Your task to perform on an android device: See recent photos Image 0: 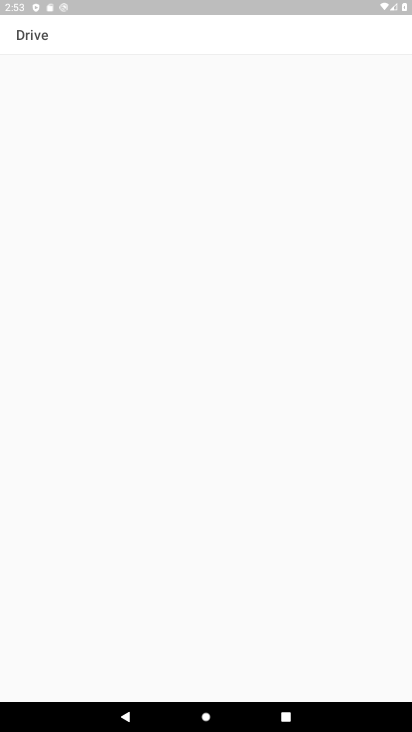
Step 0: press home button
Your task to perform on an android device: See recent photos Image 1: 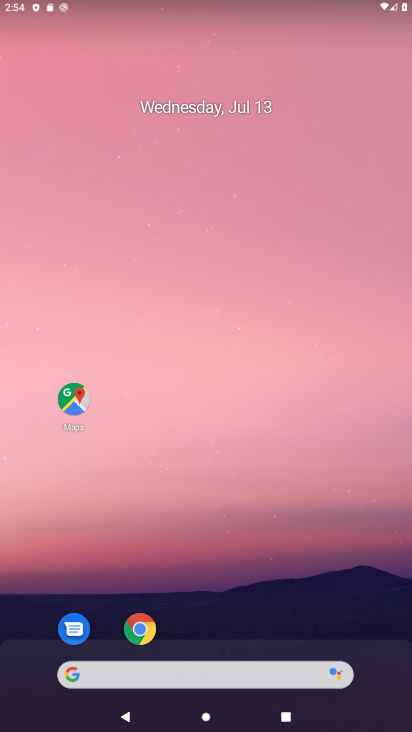
Step 1: drag from (296, 617) to (224, 170)
Your task to perform on an android device: See recent photos Image 2: 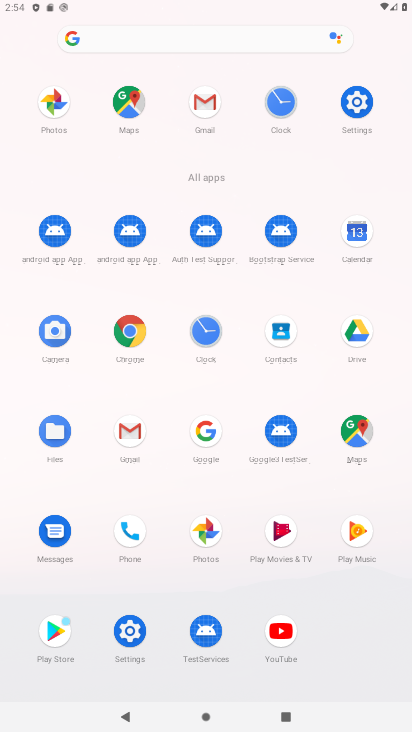
Step 2: click (207, 540)
Your task to perform on an android device: See recent photos Image 3: 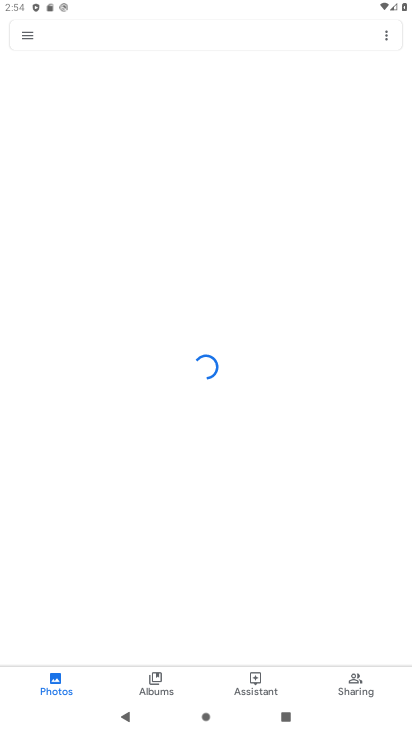
Step 3: click (176, 477)
Your task to perform on an android device: See recent photos Image 4: 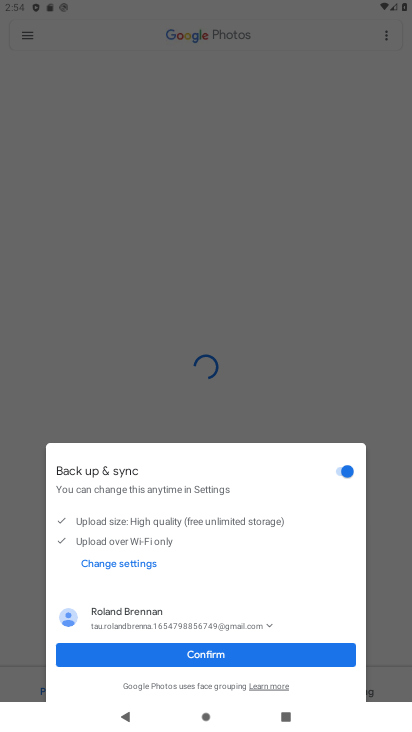
Step 4: click (214, 644)
Your task to perform on an android device: See recent photos Image 5: 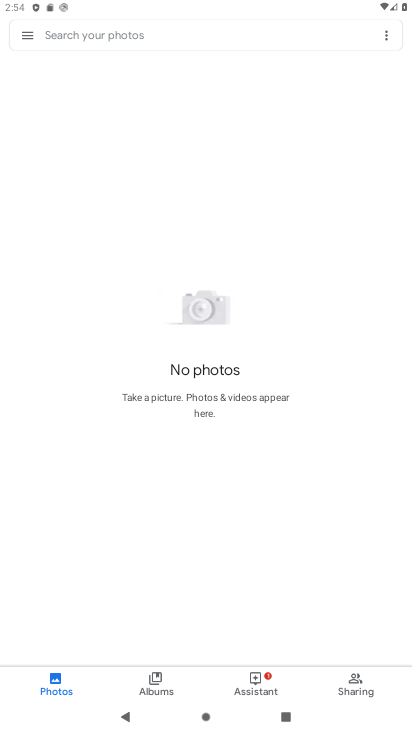
Step 5: task complete